Your task to perform on an android device: Search for seafood restaurants on Google Maps Image 0: 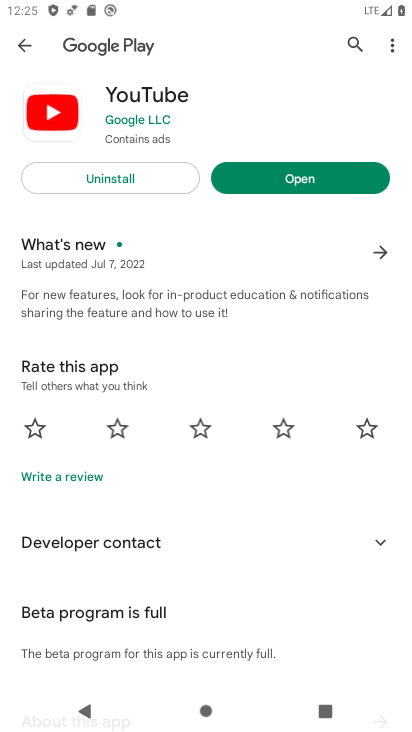
Step 0: press home button
Your task to perform on an android device: Search for seafood restaurants on Google Maps Image 1: 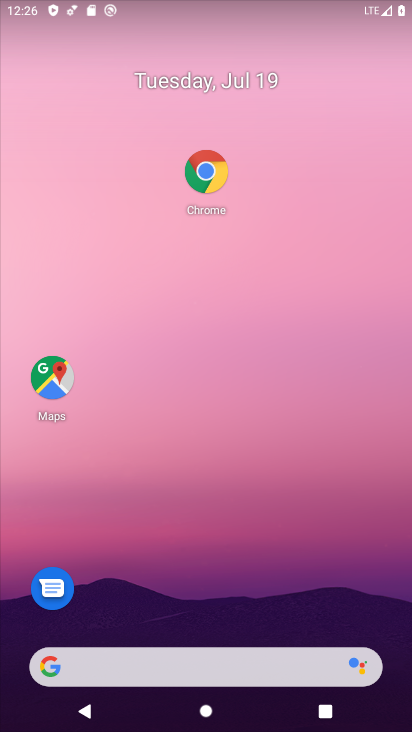
Step 1: click (55, 369)
Your task to perform on an android device: Search for seafood restaurants on Google Maps Image 2: 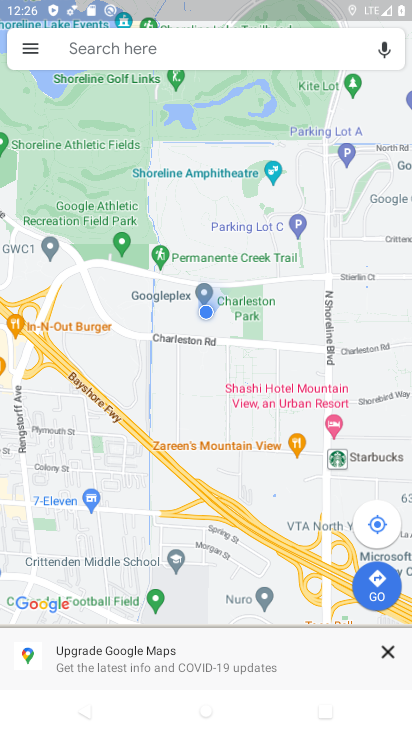
Step 2: click (123, 60)
Your task to perform on an android device: Search for seafood restaurants on Google Maps Image 3: 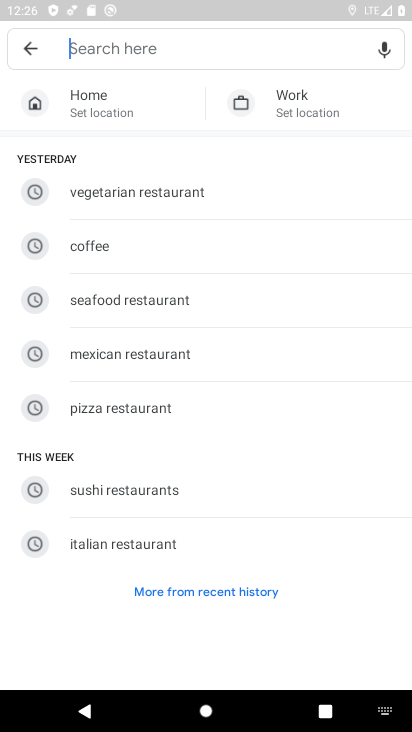
Step 3: click (123, 293)
Your task to perform on an android device: Search for seafood restaurants on Google Maps Image 4: 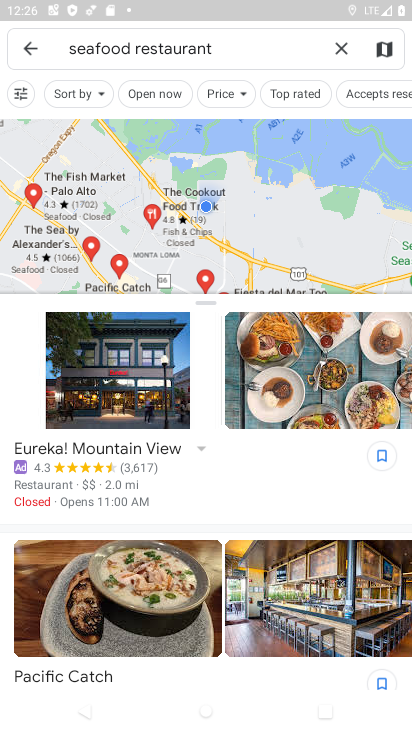
Step 4: task complete